Your task to perform on an android device: turn pop-ups off in chrome Image 0: 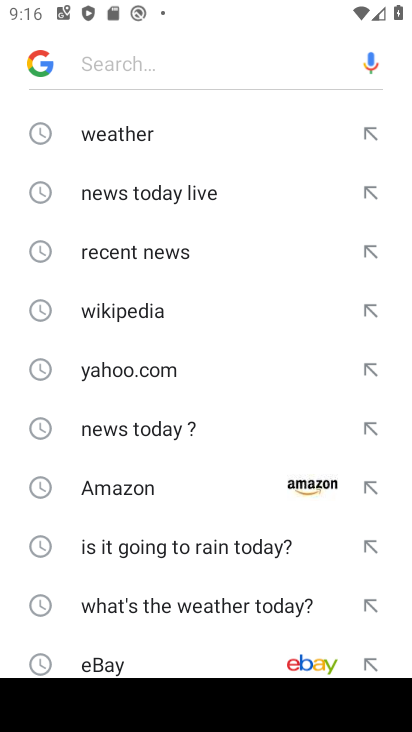
Step 0: press home button
Your task to perform on an android device: turn pop-ups off in chrome Image 1: 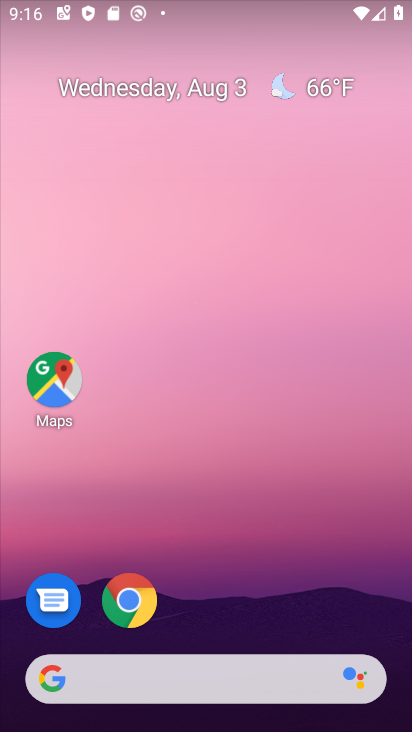
Step 1: click (145, 599)
Your task to perform on an android device: turn pop-ups off in chrome Image 2: 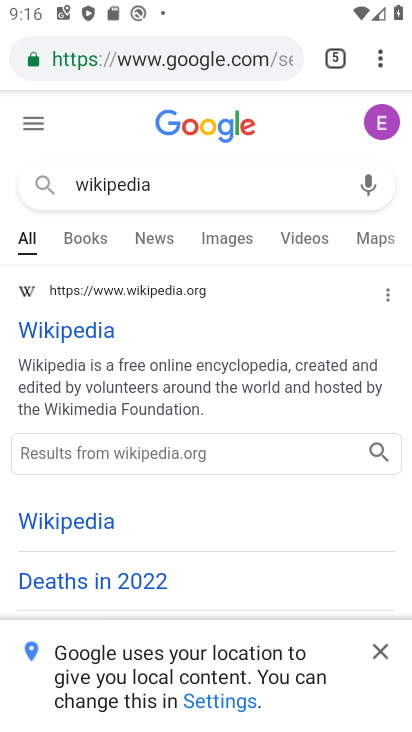
Step 2: click (378, 64)
Your task to perform on an android device: turn pop-ups off in chrome Image 3: 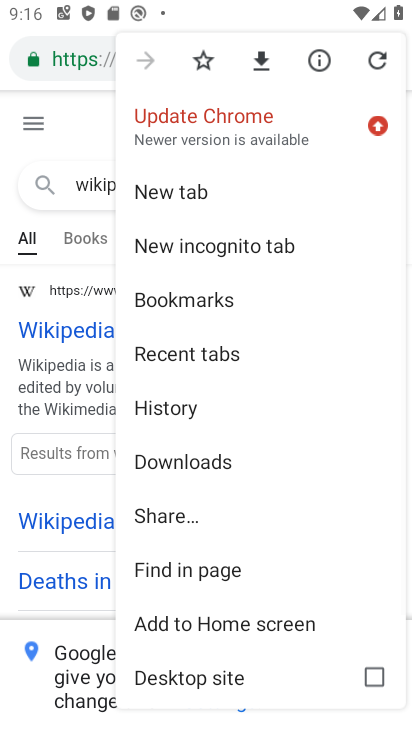
Step 3: drag from (188, 634) to (206, 459)
Your task to perform on an android device: turn pop-ups off in chrome Image 4: 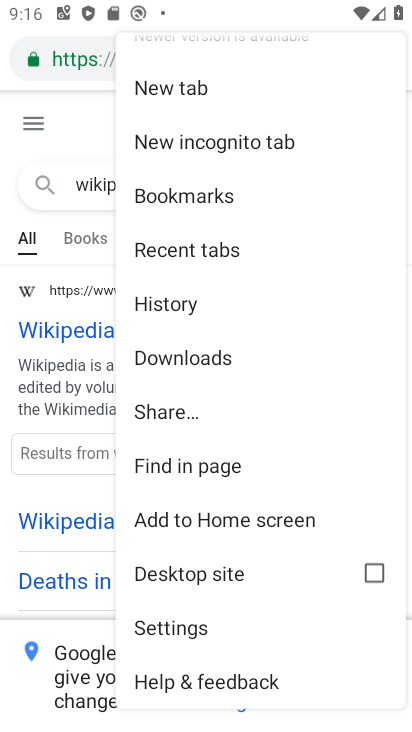
Step 4: click (181, 625)
Your task to perform on an android device: turn pop-ups off in chrome Image 5: 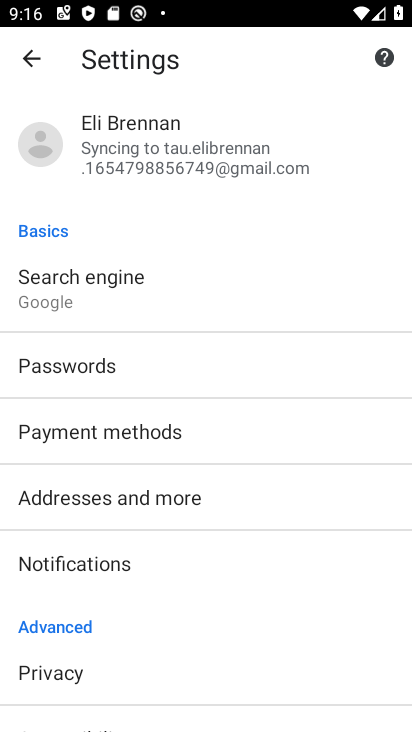
Step 5: drag from (145, 554) to (132, 302)
Your task to perform on an android device: turn pop-ups off in chrome Image 6: 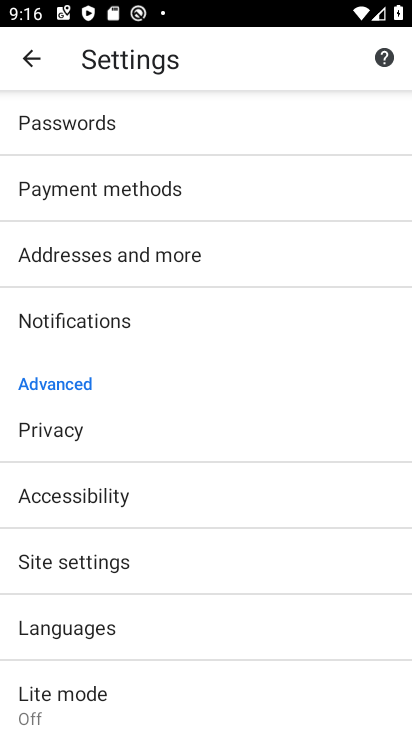
Step 6: click (72, 570)
Your task to perform on an android device: turn pop-ups off in chrome Image 7: 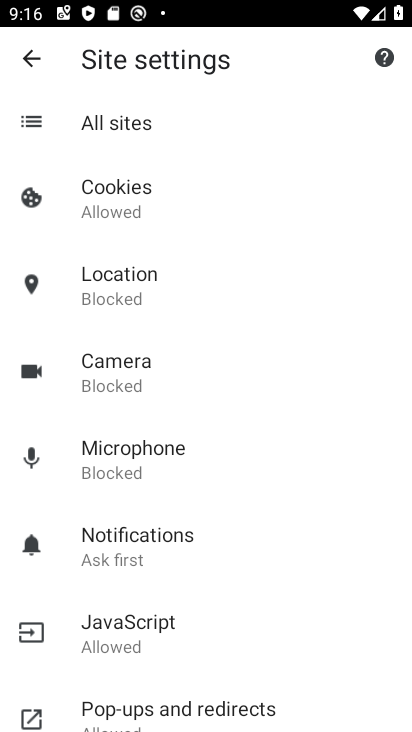
Step 7: click (150, 705)
Your task to perform on an android device: turn pop-ups off in chrome Image 8: 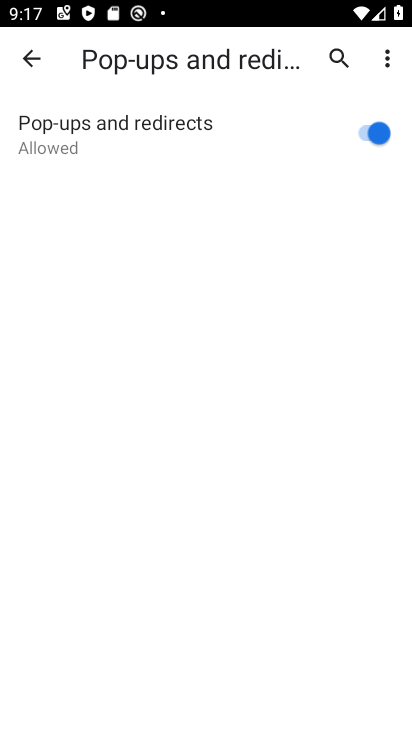
Step 8: click (341, 133)
Your task to perform on an android device: turn pop-ups off in chrome Image 9: 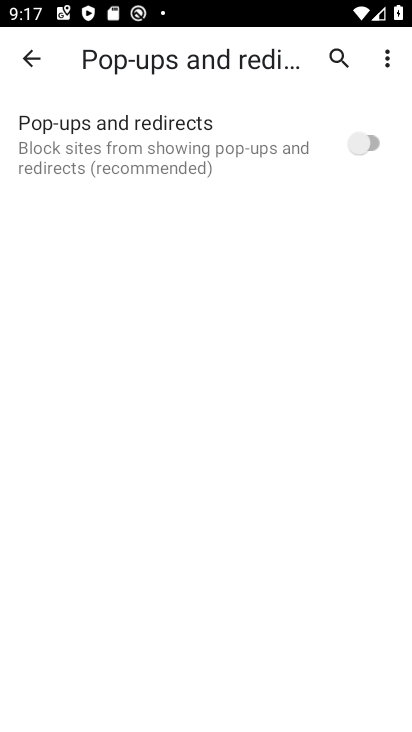
Step 9: task complete